Your task to perform on an android device: change the clock style Image 0: 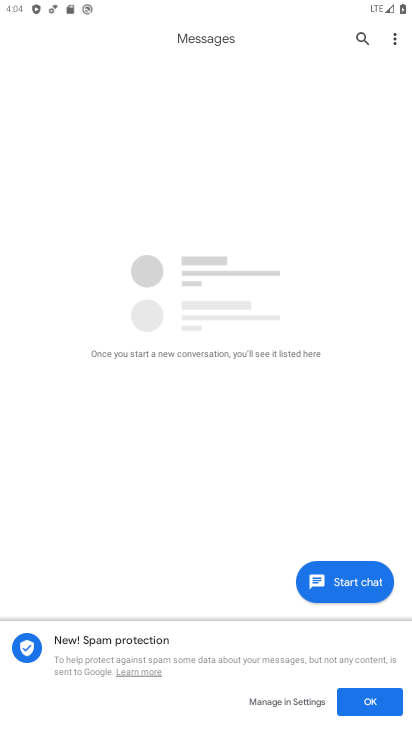
Step 0: press home button
Your task to perform on an android device: change the clock style Image 1: 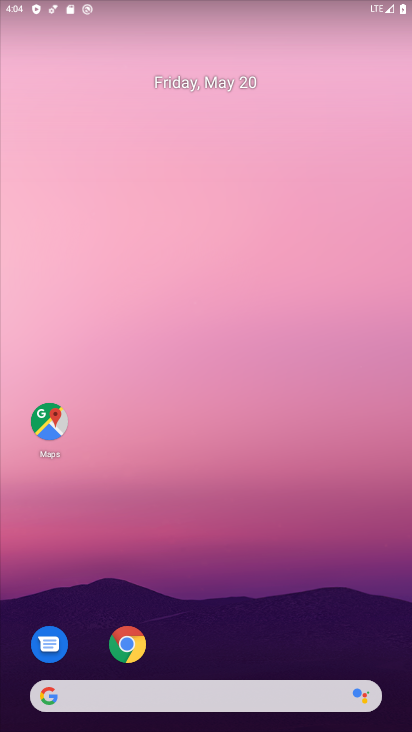
Step 1: drag from (279, 728) to (142, 102)
Your task to perform on an android device: change the clock style Image 2: 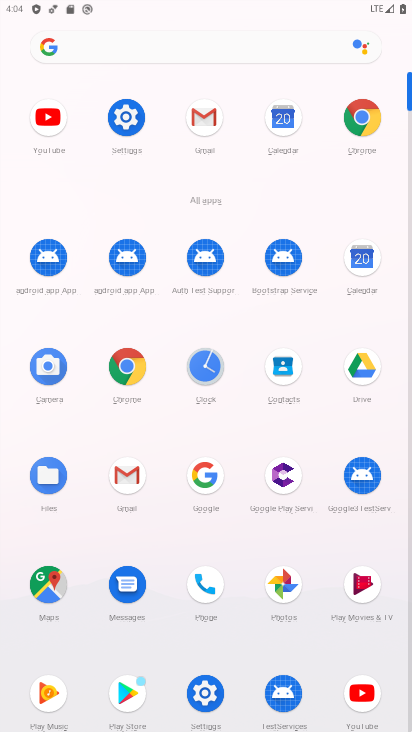
Step 2: click (206, 366)
Your task to perform on an android device: change the clock style Image 3: 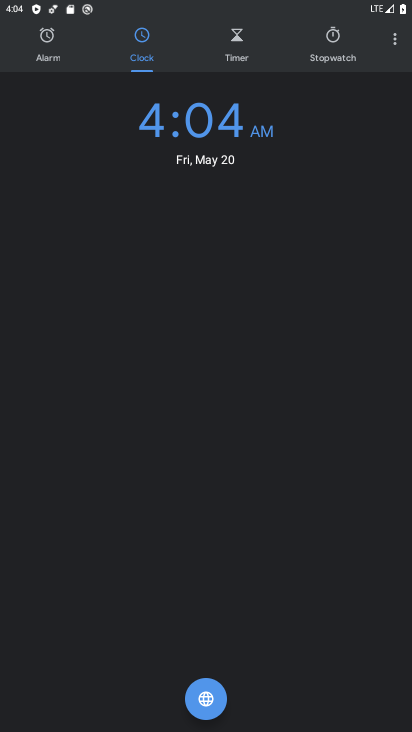
Step 3: click (388, 43)
Your task to perform on an android device: change the clock style Image 4: 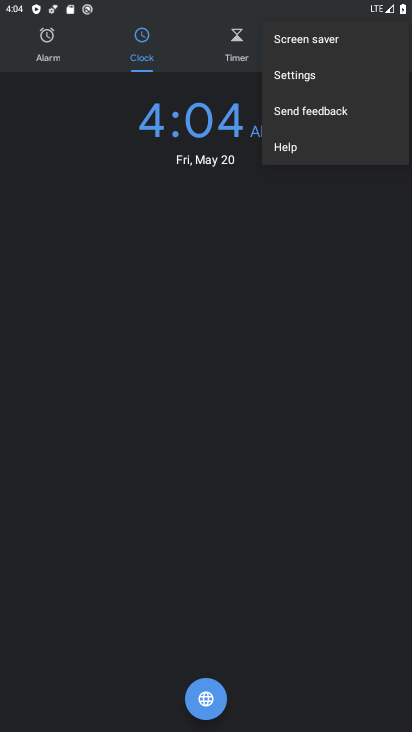
Step 4: click (306, 73)
Your task to perform on an android device: change the clock style Image 5: 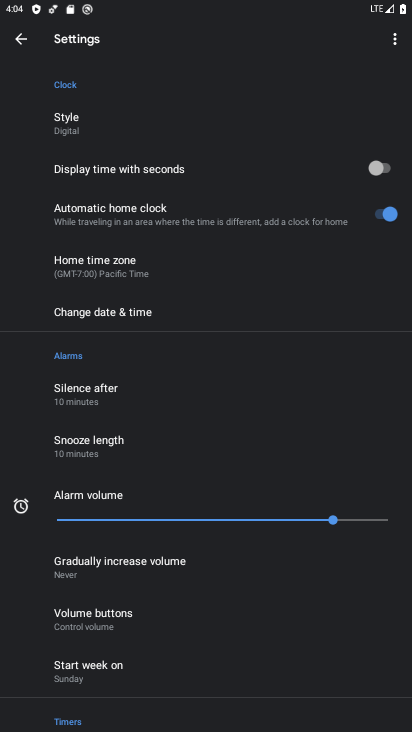
Step 5: click (115, 135)
Your task to perform on an android device: change the clock style Image 6: 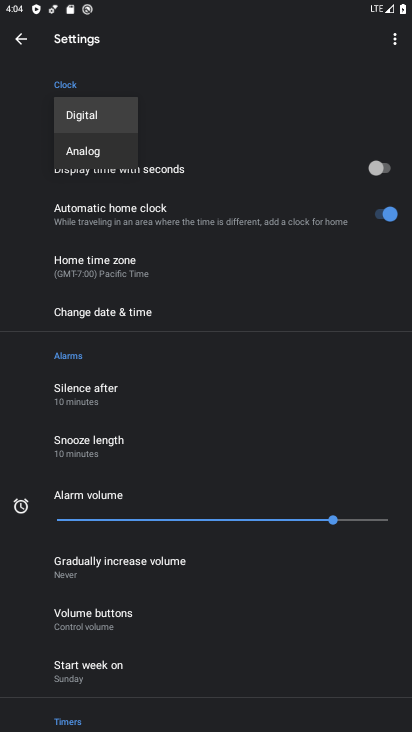
Step 6: click (105, 152)
Your task to perform on an android device: change the clock style Image 7: 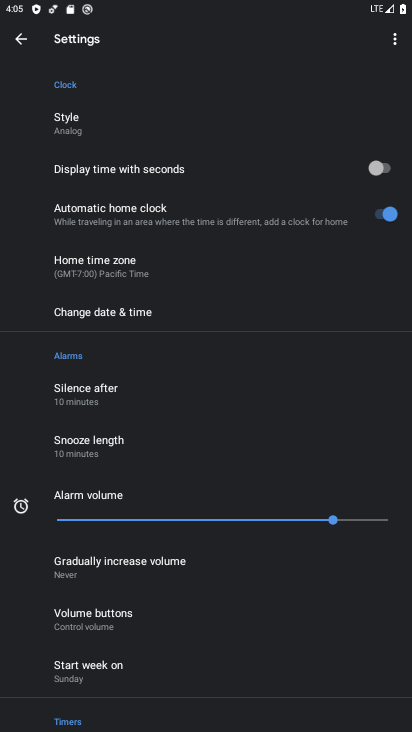
Step 7: task complete